Your task to perform on an android device: clear all cookies in the chrome app Image 0: 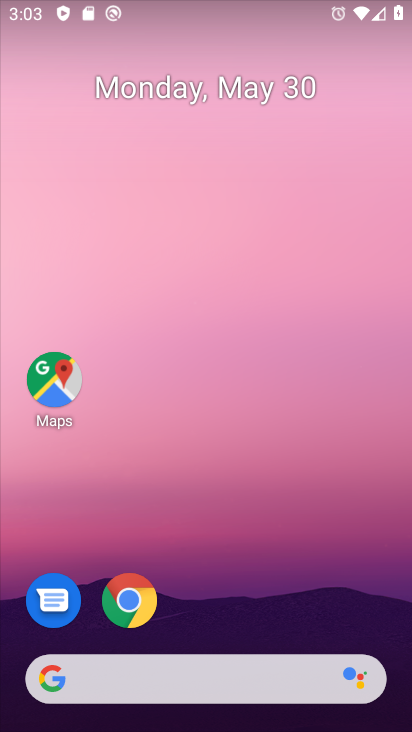
Step 0: click (123, 611)
Your task to perform on an android device: clear all cookies in the chrome app Image 1: 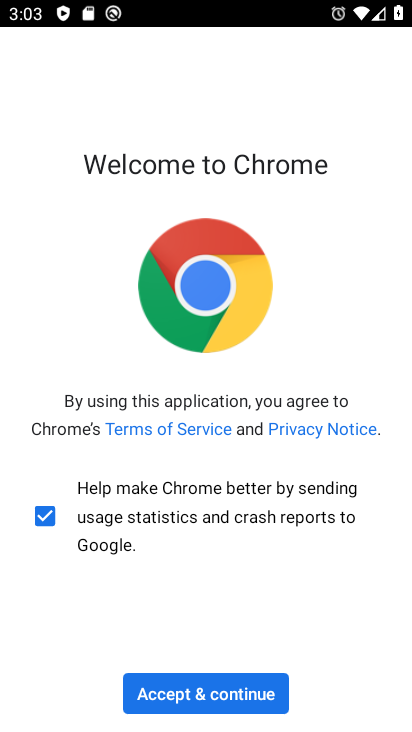
Step 1: click (229, 690)
Your task to perform on an android device: clear all cookies in the chrome app Image 2: 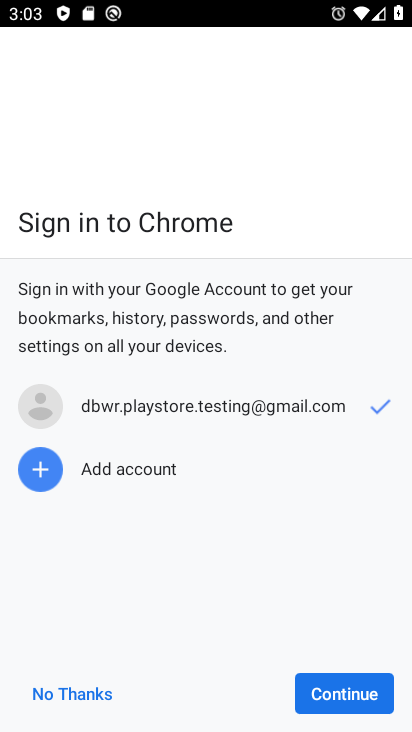
Step 2: click (339, 689)
Your task to perform on an android device: clear all cookies in the chrome app Image 3: 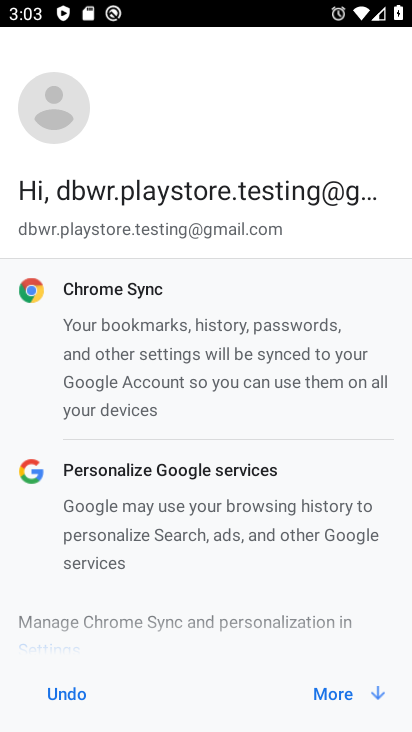
Step 3: click (332, 695)
Your task to perform on an android device: clear all cookies in the chrome app Image 4: 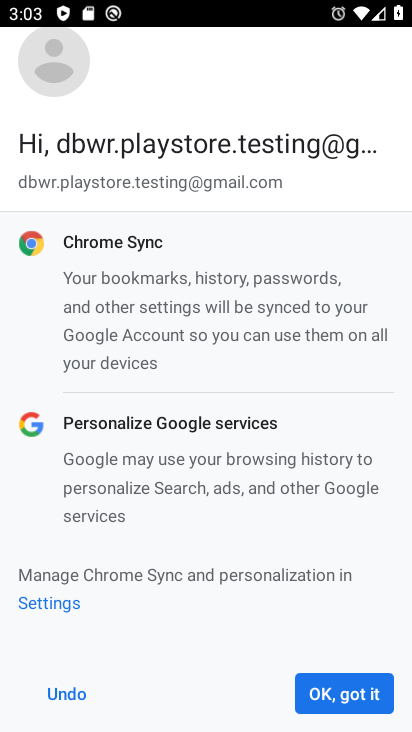
Step 4: click (332, 695)
Your task to perform on an android device: clear all cookies in the chrome app Image 5: 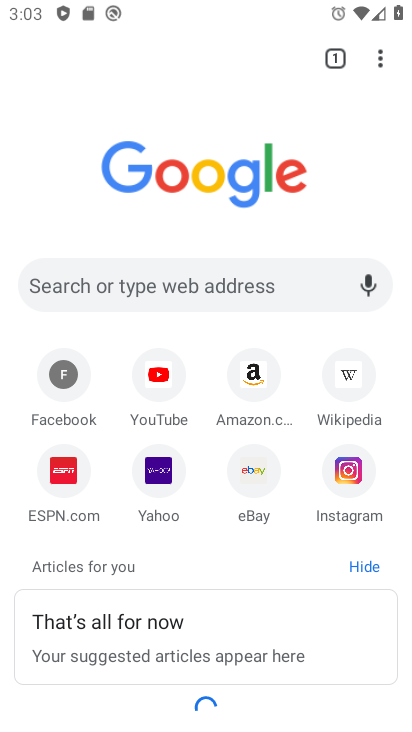
Step 5: click (381, 65)
Your task to perform on an android device: clear all cookies in the chrome app Image 6: 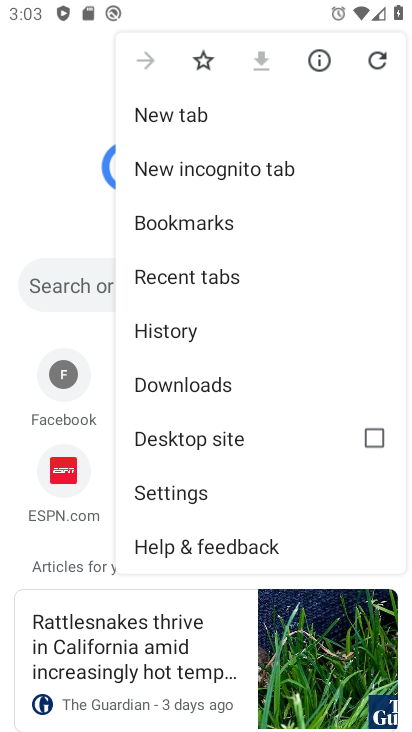
Step 6: click (171, 329)
Your task to perform on an android device: clear all cookies in the chrome app Image 7: 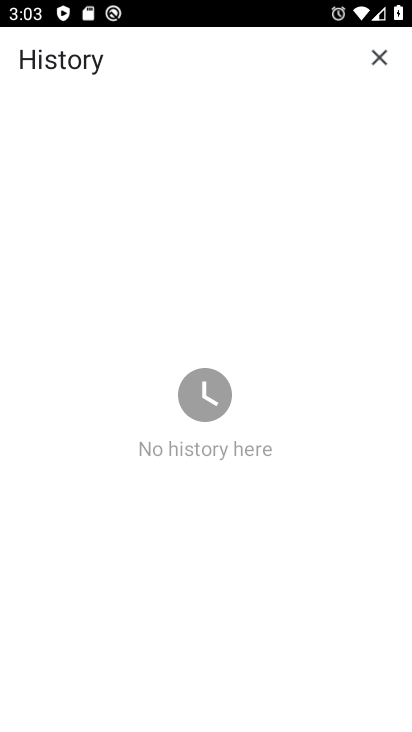
Step 7: task complete